Your task to perform on an android device: turn off airplane mode Image 0: 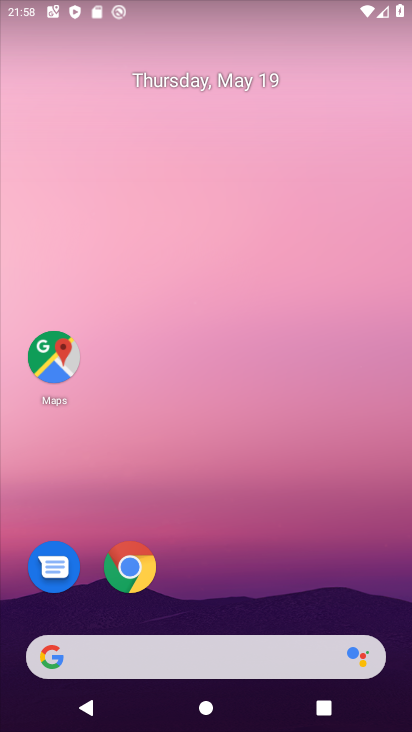
Step 0: drag from (218, 602) to (248, 69)
Your task to perform on an android device: turn off airplane mode Image 1: 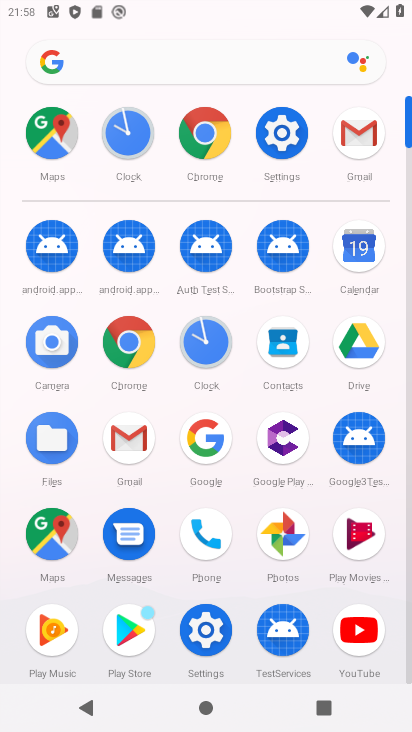
Step 1: task complete